Your task to perform on an android device: Go to CNN.com Image 0: 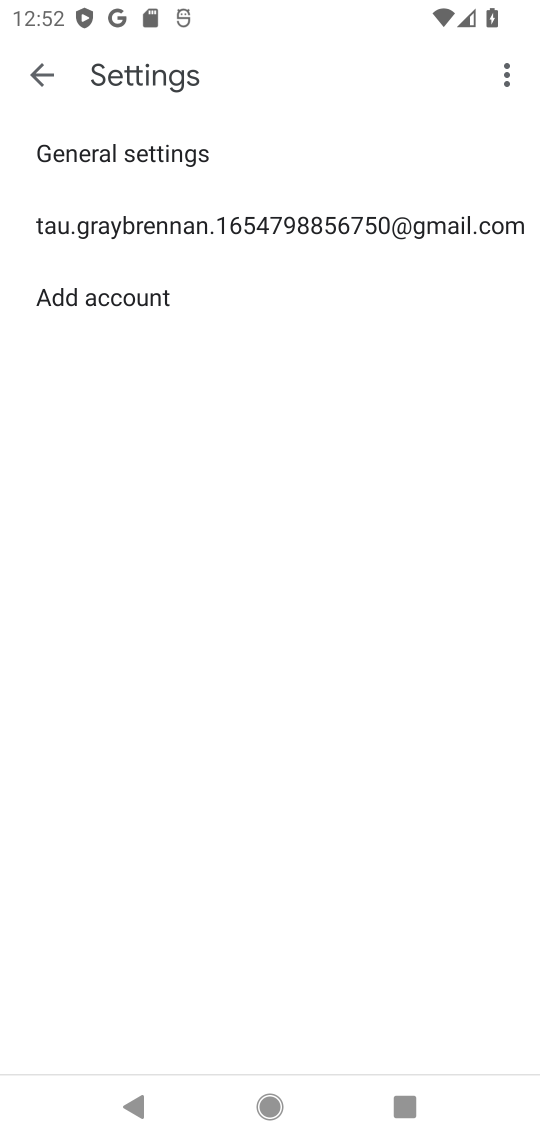
Step 0: press home button
Your task to perform on an android device: Go to CNN.com Image 1: 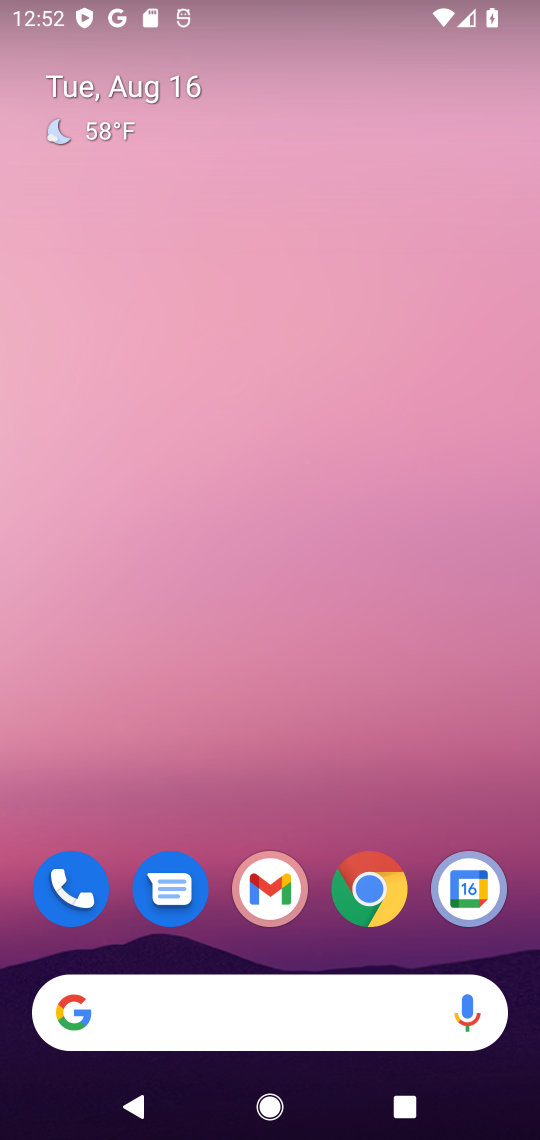
Step 1: drag from (275, 1002) to (329, 149)
Your task to perform on an android device: Go to CNN.com Image 2: 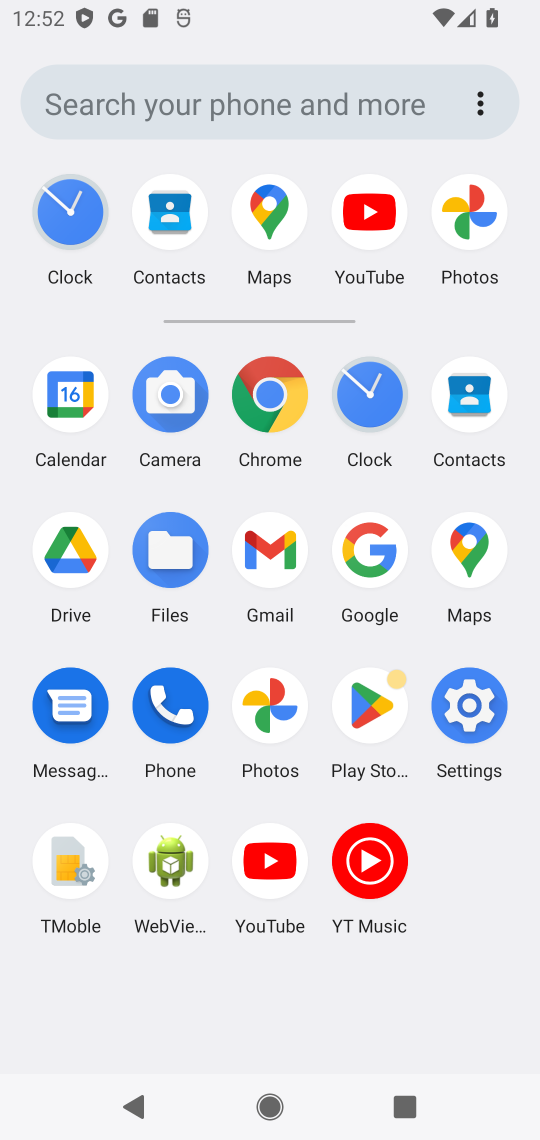
Step 2: click (264, 408)
Your task to perform on an android device: Go to CNN.com Image 3: 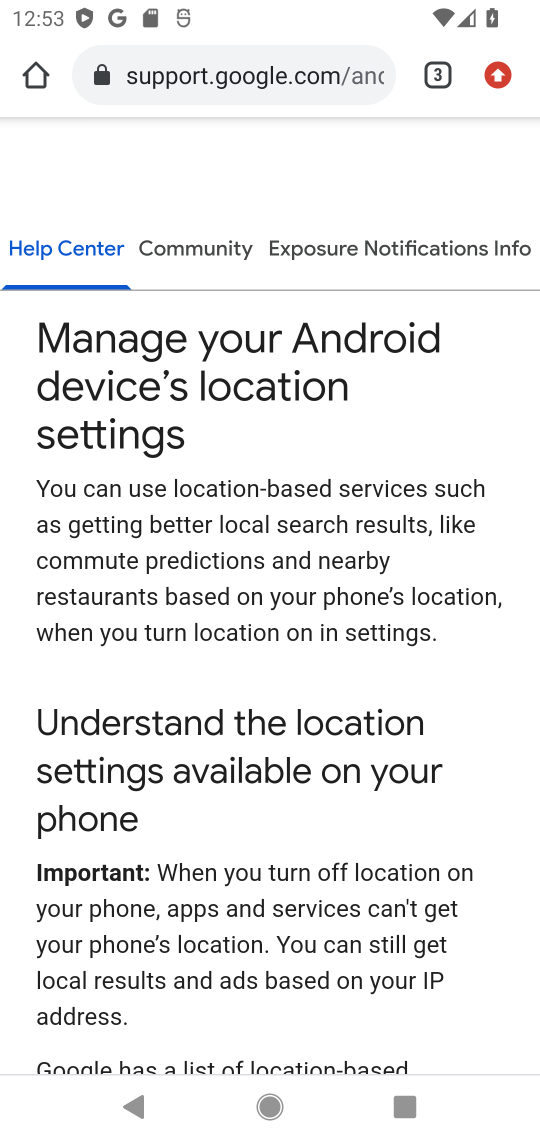
Step 3: press back button
Your task to perform on an android device: Go to CNN.com Image 4: 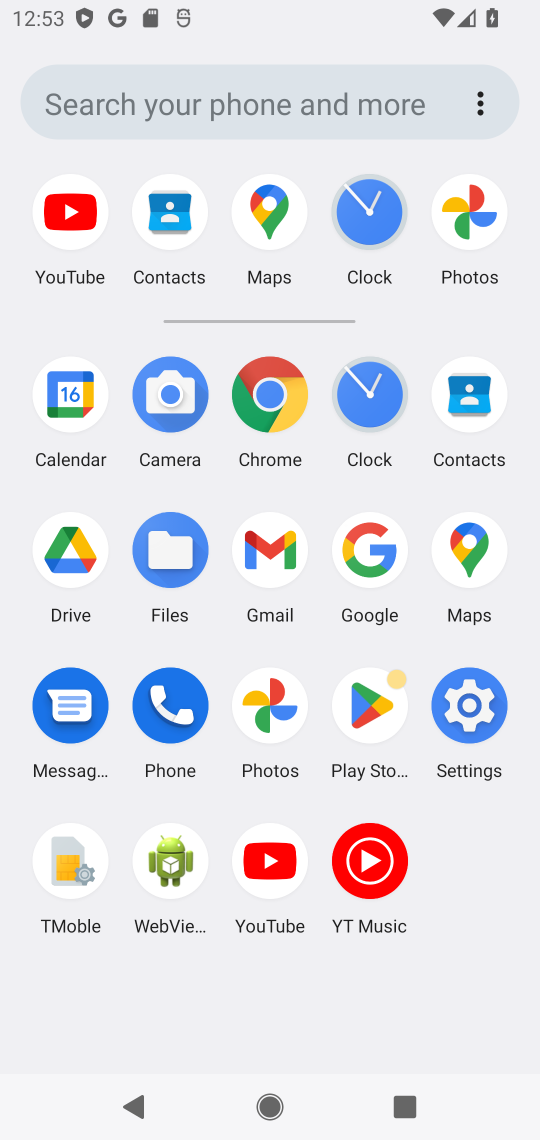
Step 4: click (251, 414)
Your task to perform on an android device: Go to CNN.com Image 5: 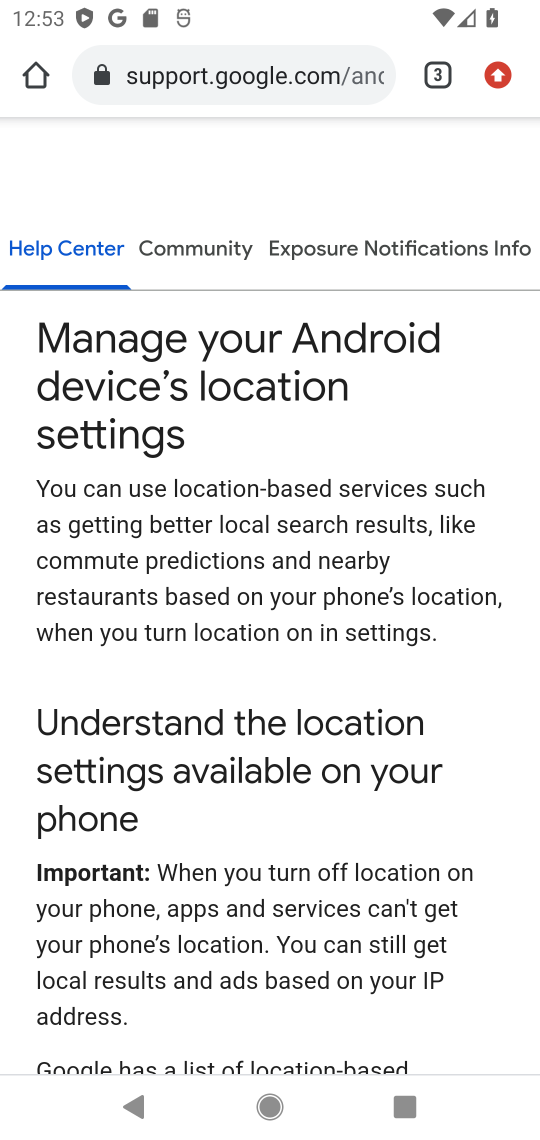
Step 5: click (188, 77)
Your task to perform on an android device: Go to CNN.com Image 6: 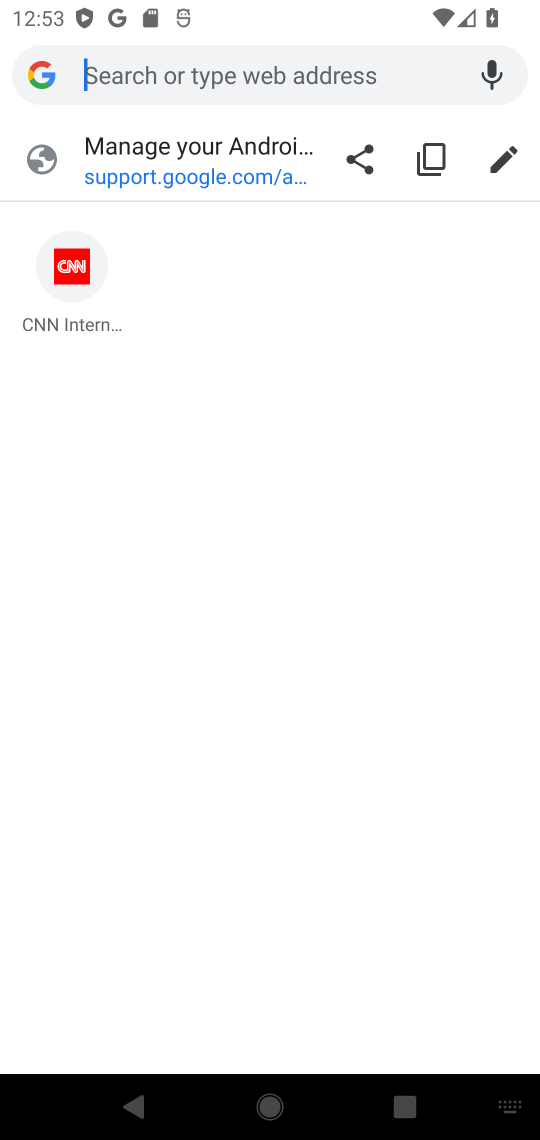
Step 6: type " CNN.com"
Your task to perform on an android device: Go to CNN.com Image 7: 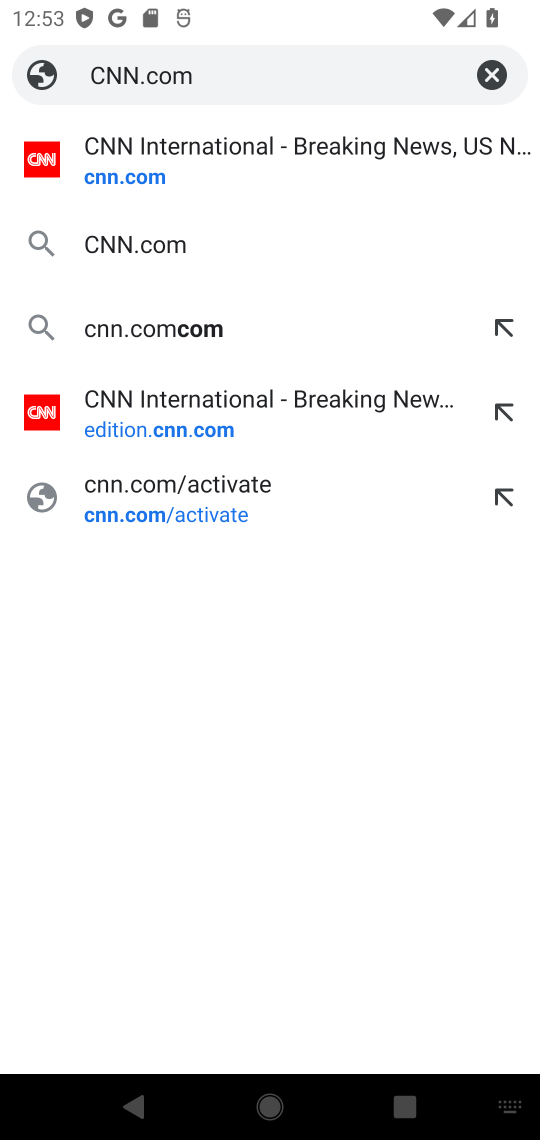
Step 7: click (104, 160)
Your task to perform on an android device: Go to CNN.com Image 8: 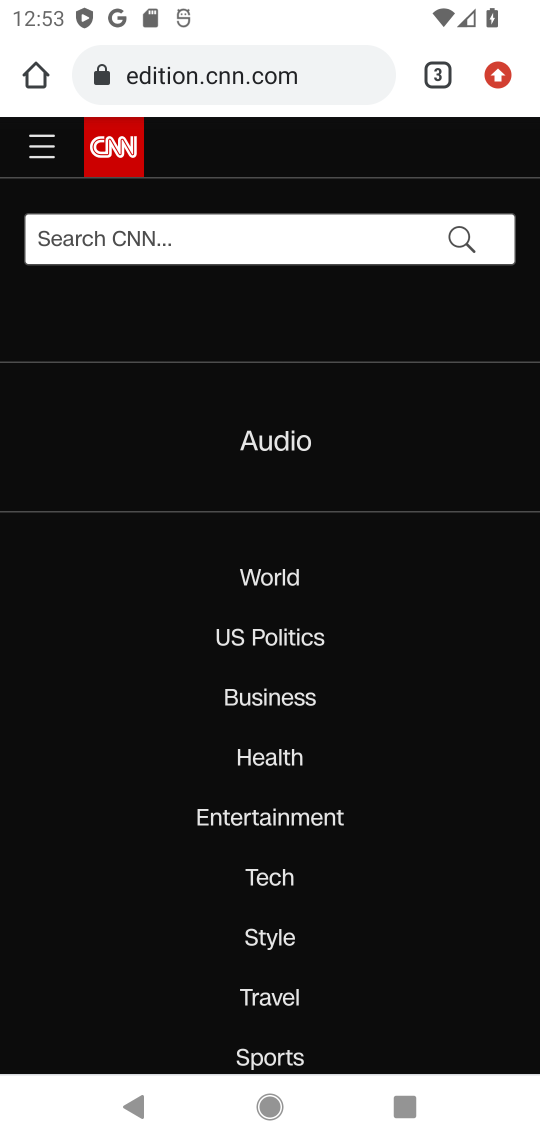
Step 8: task complete